Your task to perform on an android device: Open Google Image 0: 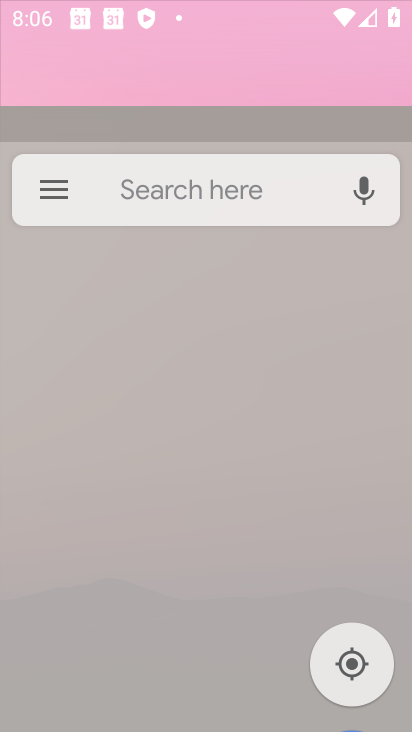
Step 0: press home button
Your task to perform on an android device: Open Google Image 1: 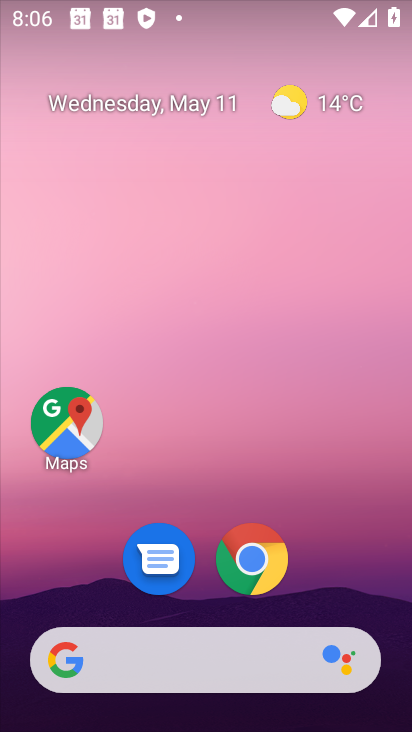
Step 1: drag from (378, 548) to (291, 36)
Your task to perform on an android device: Open Google Image 2: 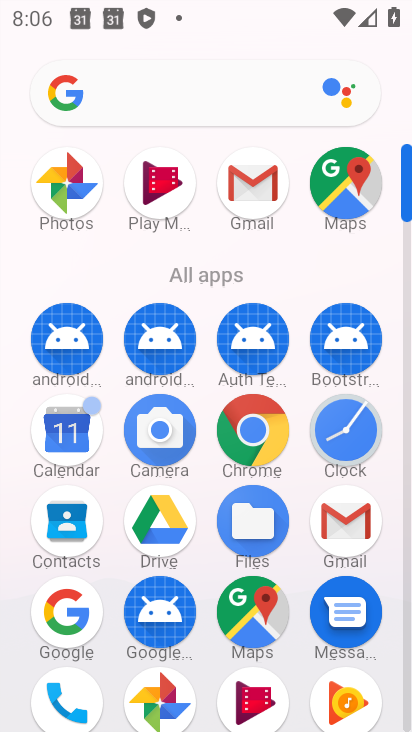
Step 2: click (84, 614)
Your task to perform on an android device: Open Google Image 3: 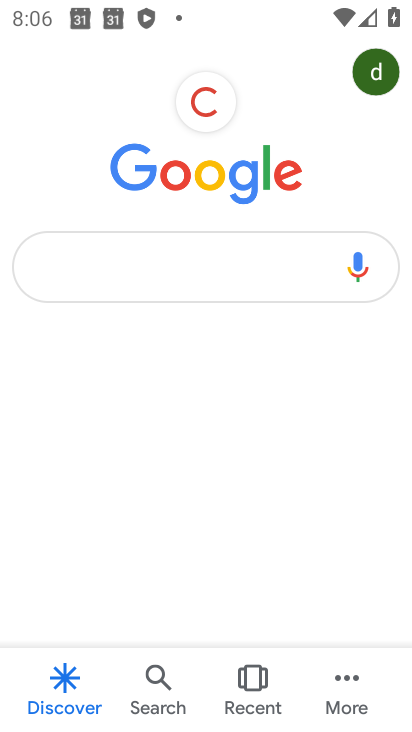
Step 3: task complete